Your task to perform on an android device: check the backup settings in the google photos Image 0: 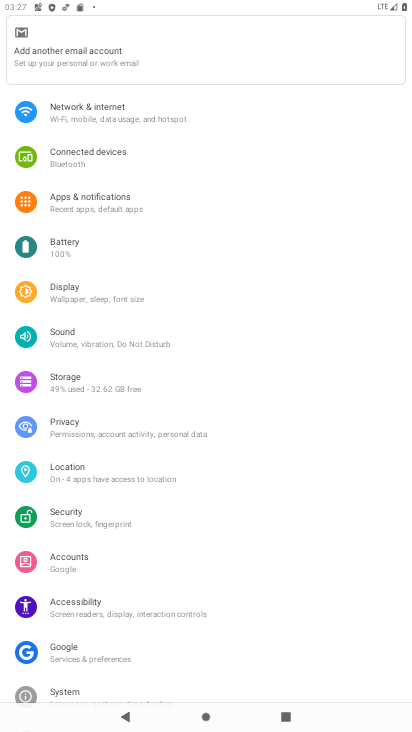
Step 0: press home button
Your task to perform on an android device: check the backup settings in the google photos Image 1: 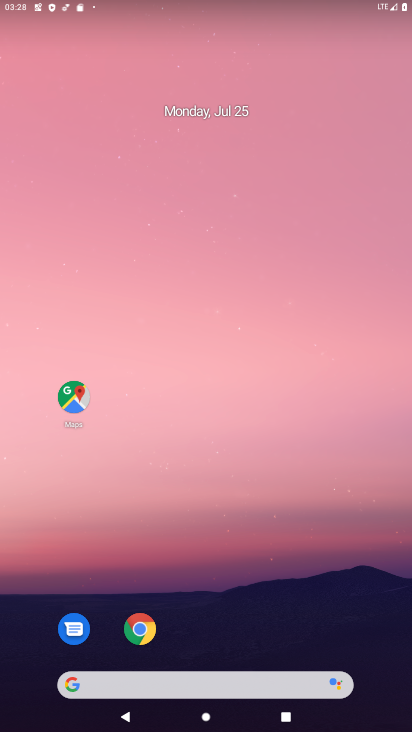
Step 1: drag from (251, 661) to (205, 4)
Your task to perform on an android device: check the backup settings in the google photos Image 2: 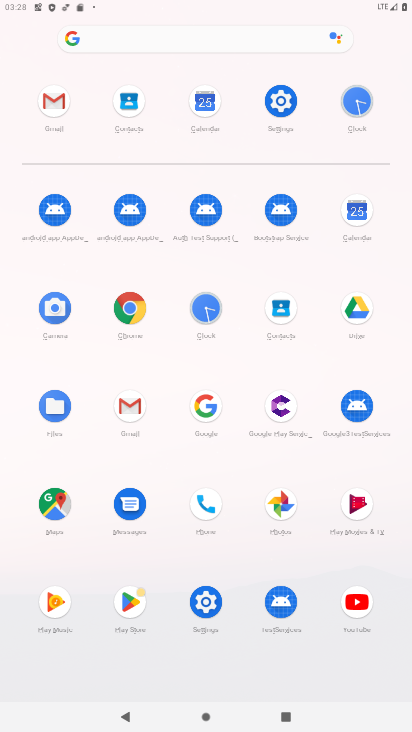
Step 2: click (271, 496)
Your task to perform on an android device: check the backup settings in the google photos Image 3: 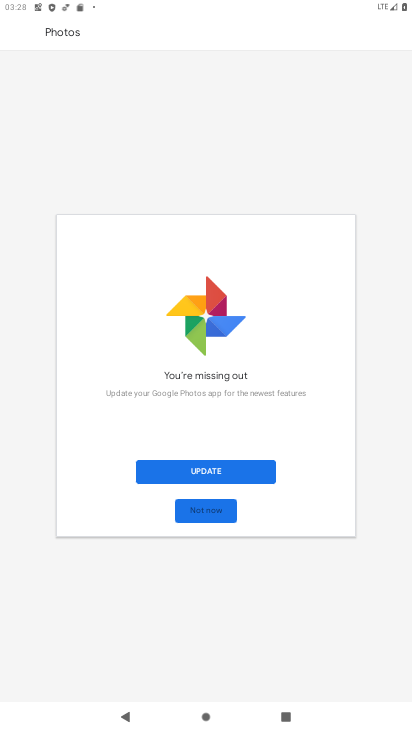
Step 3: click (190, 509)
Your task to perform on an android device: check the backup settings in the google photos Image 4: 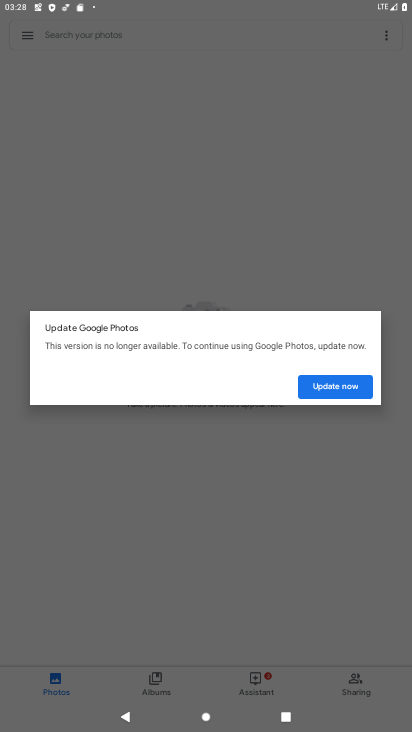
Step 4: click (336, 390)
Your task to perform on an android device: check the backup settings in the google photos Image 5: 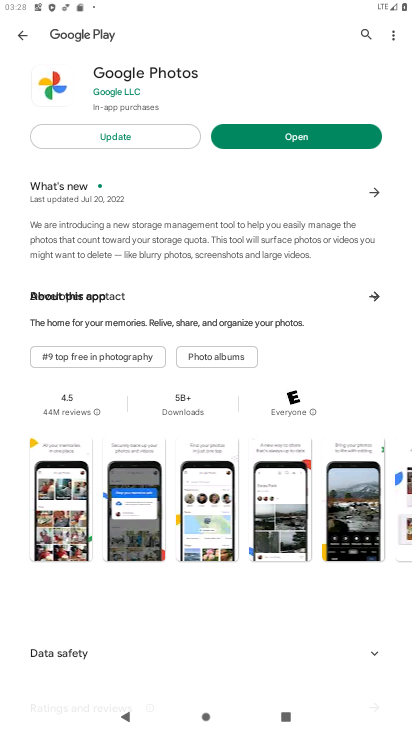
Step 5: click (281, 135)
Your task to perform on an android device: check the backup settings in the google photos Image 6: 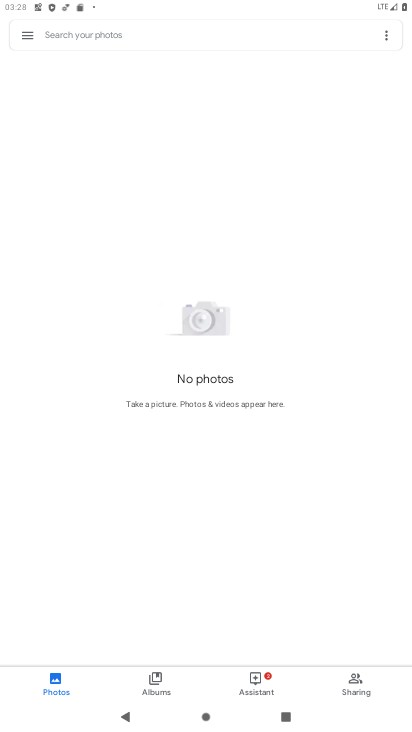
Step 6: click (30, 35)
Your task to perform on an android device: check the backup settings in the google photos Image 7: 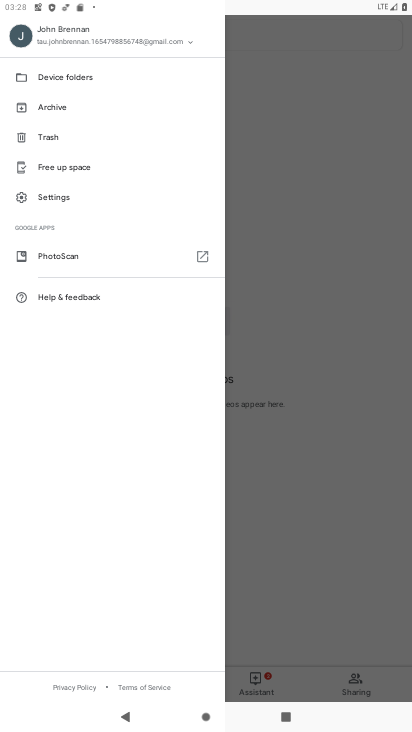
Step 7: click (54, 194)
Your task to perform on an android device: check the backup settings in the google photos Image 8: 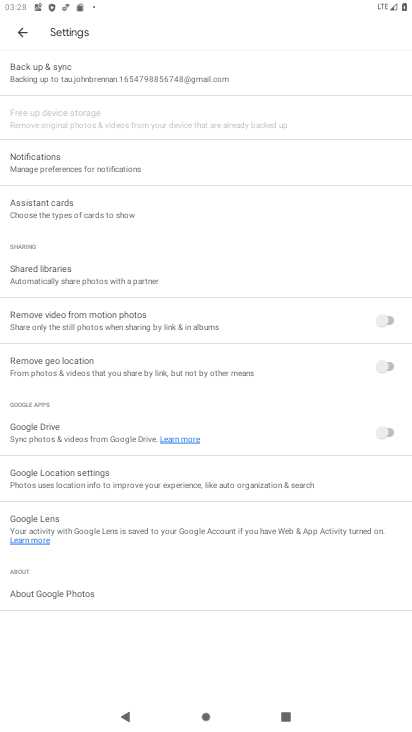
Step 8: click (55, 74)
Your task to perform on an android device: check the backup settings in the google photos Image 9: 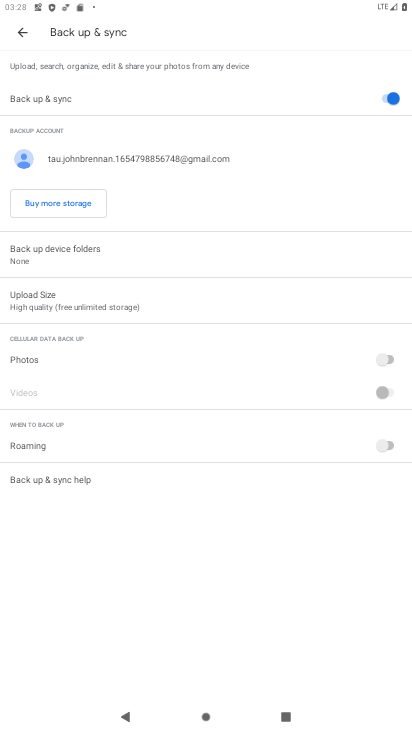
Step 9: task complete